Your task to perform on an android device: Show me popular games on the Play Store Image 0: 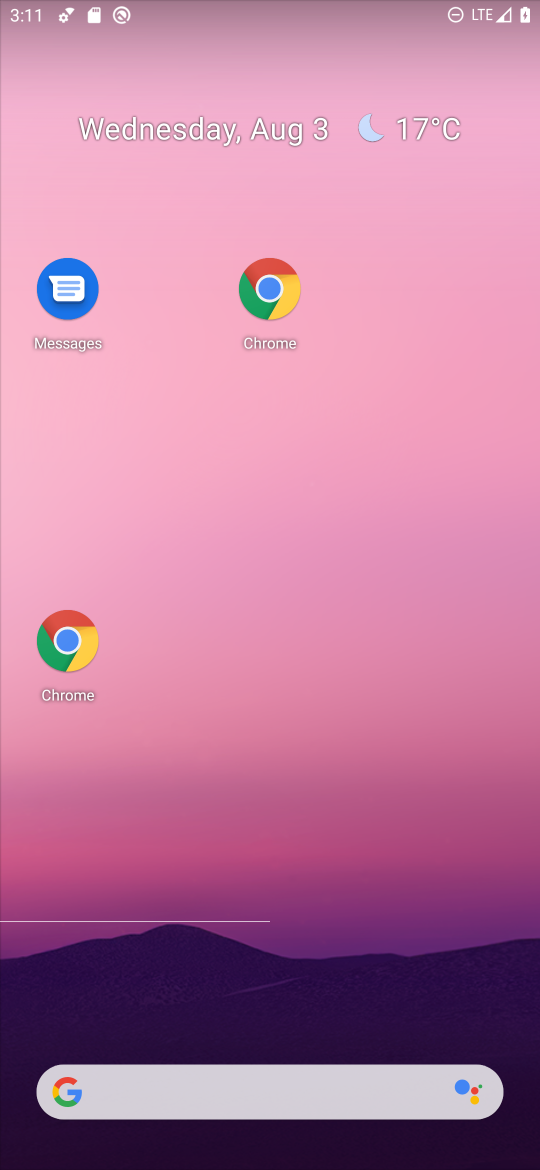
Step 0: drag from (384, 1011) to (380, 192)
Your task to perform on an android device: Show me popular games on the Play Store Image 1: 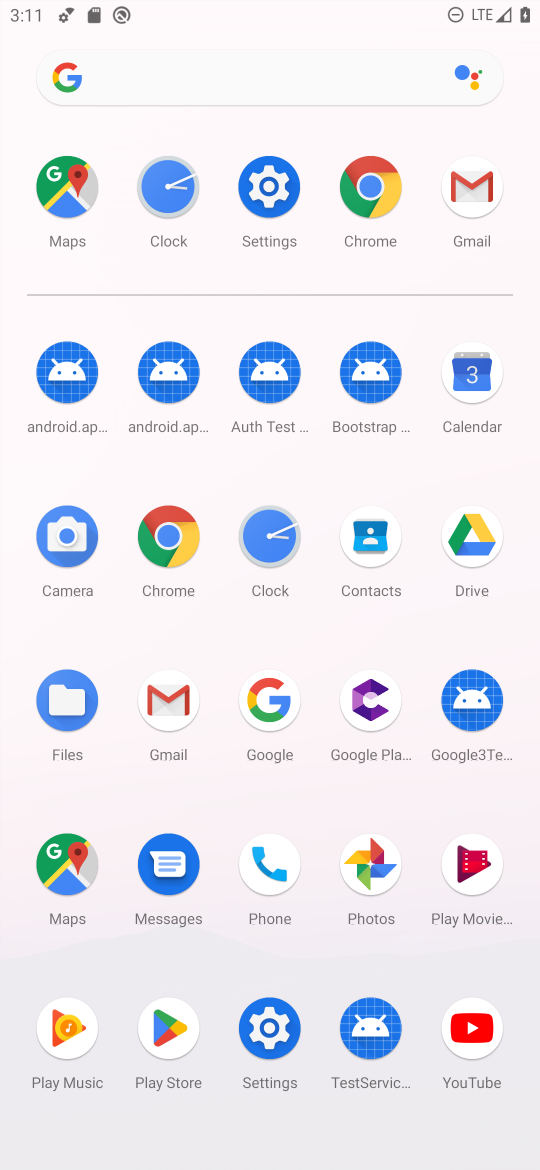
Step 1: click (178, 1031)
Your task to perform on an android device: Show me popular games on the Play Store Image 2: 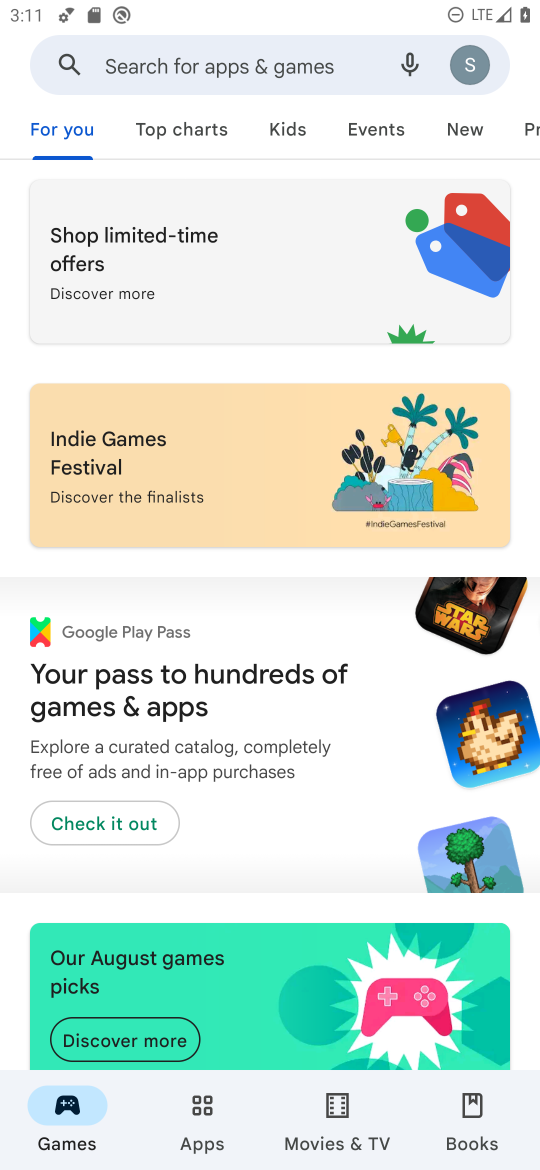
Step 2: task complete